Your task to perform on an android device: delete browsing data in the chrome app Image 0: 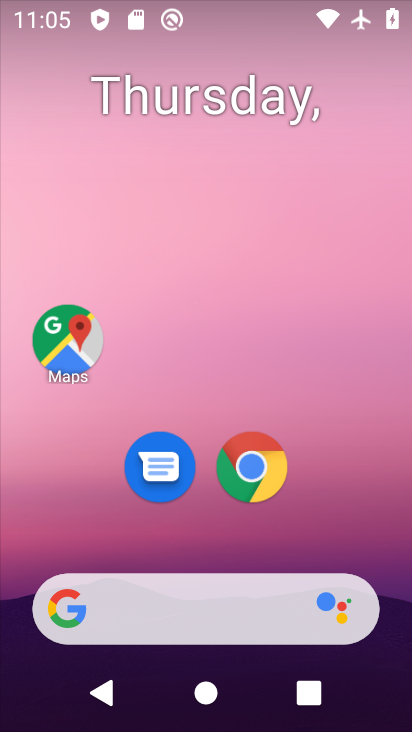
Step 0: click (255, 474)
Your task to perform on an android device: delete browsing data in the chrome app Image 1: 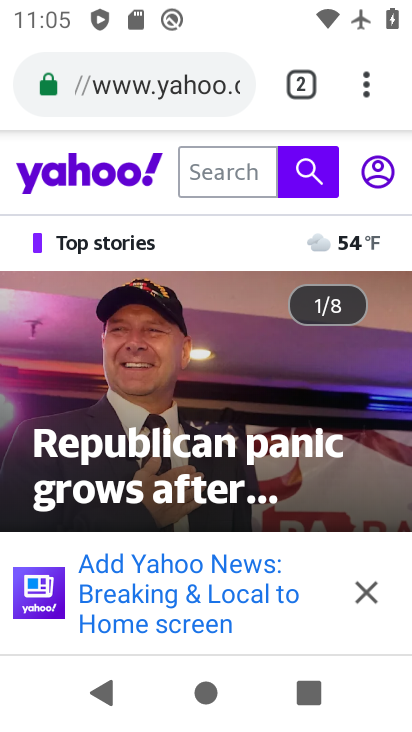
Step 1: click (367, 86)
Your task to perform on an android device: delete browsing data in the chrome app Image 2: 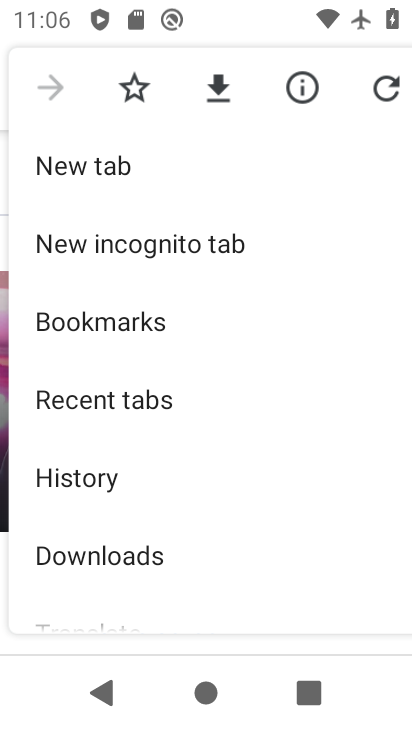
Step 2: drag from (197, 484) to (197, 121)
Your task to perform on an android device: delete browsing data in the chrome app Image 3: 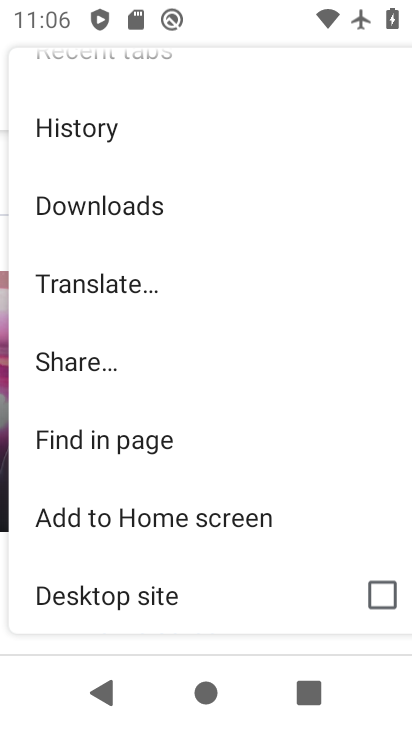
Step 3: drag from (157, 504) to (178, 149)
Your task to perform on an android device: delete browsing data in the chrome app Image 4: 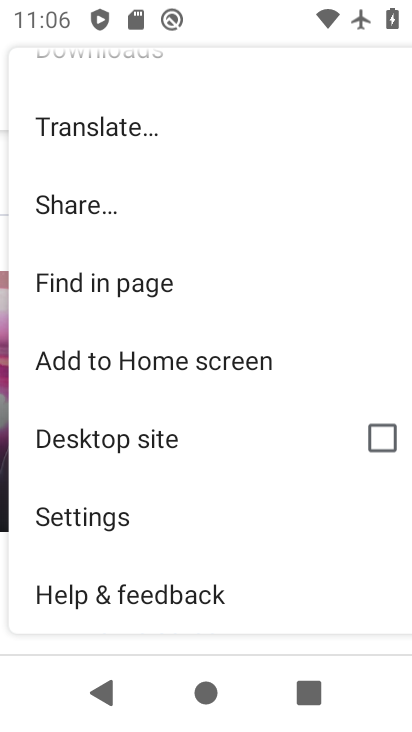
Step 4: click (88, 518)
Your task to perform on an android device: delete browsing data in the chrome app Image 5: 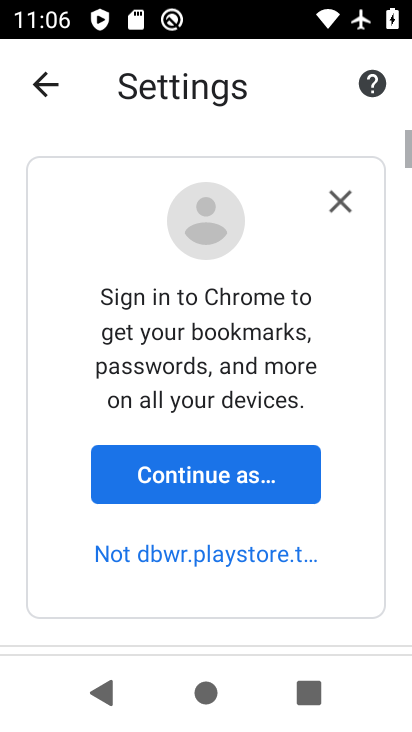
Step 5: drag from (223, 578) to (238, 121)
Your task to perform on an android device: delete browsing data in the chrome app Image 6: 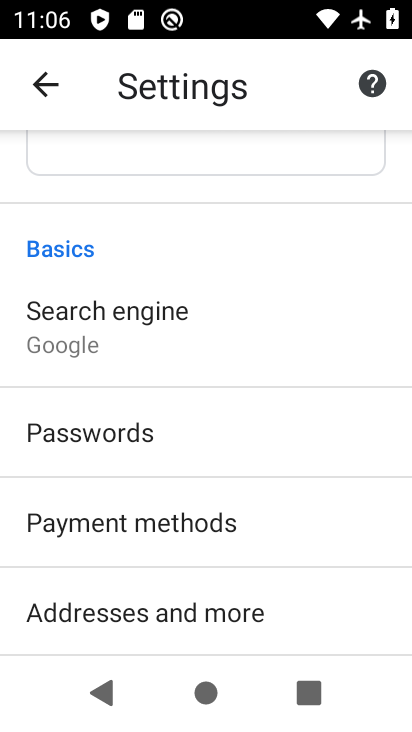
Step 6: drag from (134, 541) to (158, 100)
Your task to perform on an android device: delete browsing data in the chrome app Image 7: 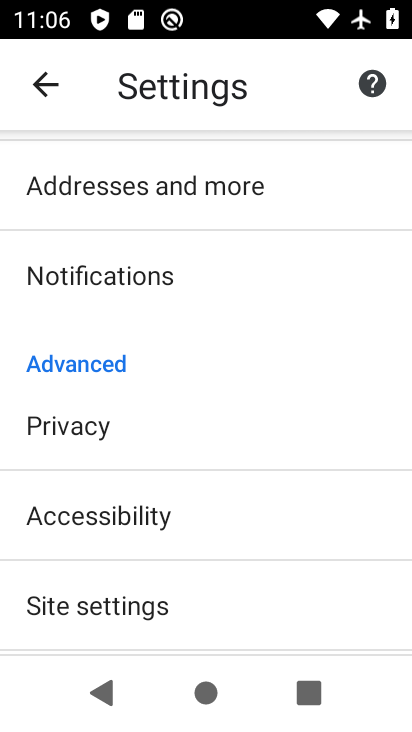
Step 7: click (73, 428)
Your task to perform on an android device: delete browsing data in the chrome app Image 8: 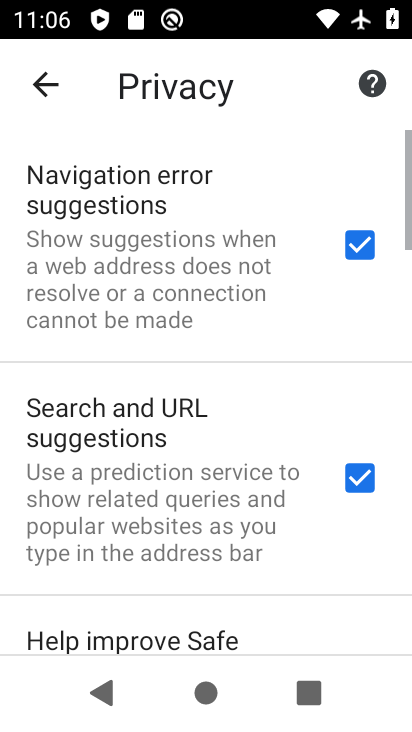
Step 8: drag from (192, 515) to (213, 32)
Your task to perform on an android device: delete browsing data in the chrome app Image 9: 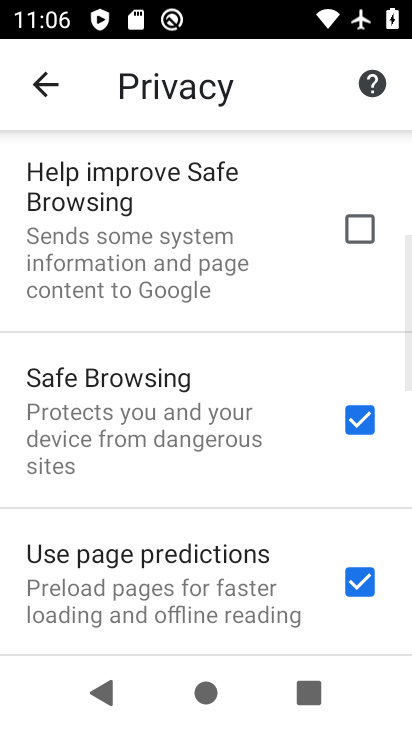
Step 9: drag from (118, 573) to (133, 86)
Your task to perform on an android device: delete browsing data in the chrome app Image 10: 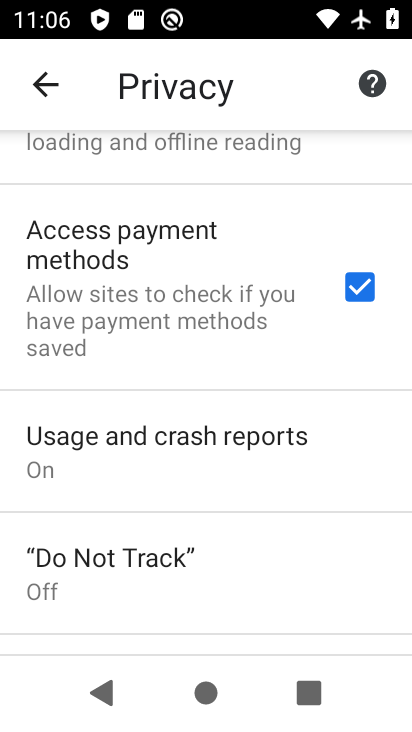
Step 10: drag from (136, 517) to (129, 118)
Your task to perform on an android device: delete browsing data in the chrome app Image 11: 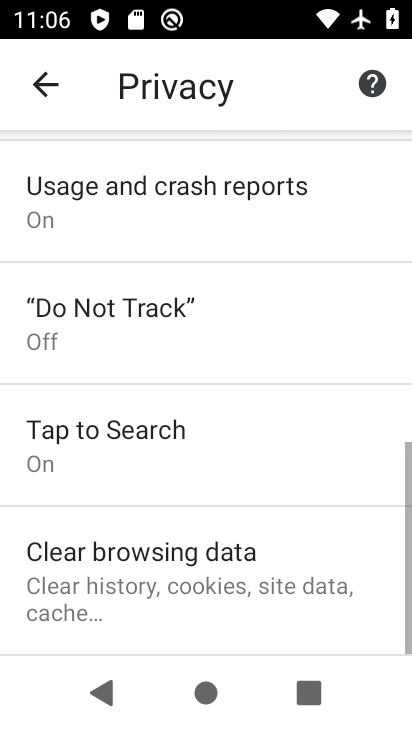
Step 11: click (104, 565)
Your task to perform on an android device: delete browsing data in the chrome app Image 12: 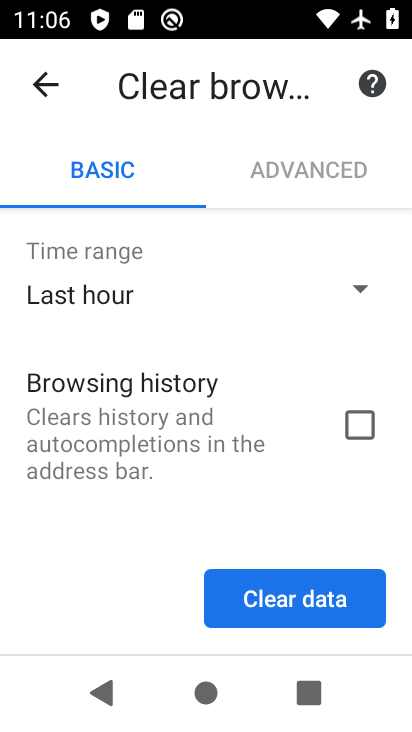
Step 12: click (353, 425)
Your task to perform on an android device: delete browsing data in the chrome app Image 13: 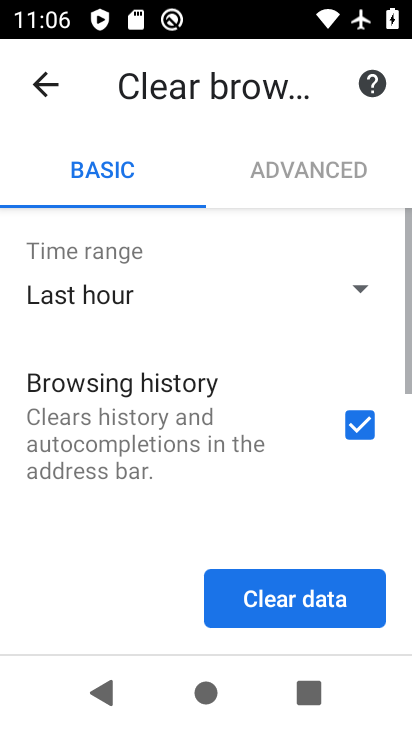
Step 13: drag from (131, 460) to (145, 153)
Your task to perform on an android device: delete browsing data in the chrome app Image 14: 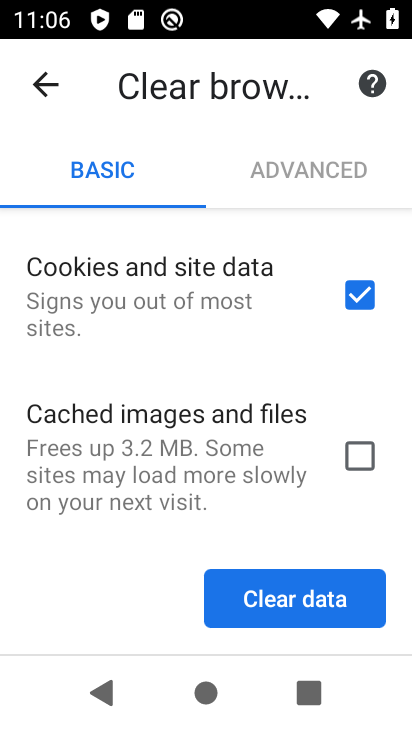
Step 14: click (349, 294)
Your task to perform on an android device: delete browsing data in the chrome app Image 15: 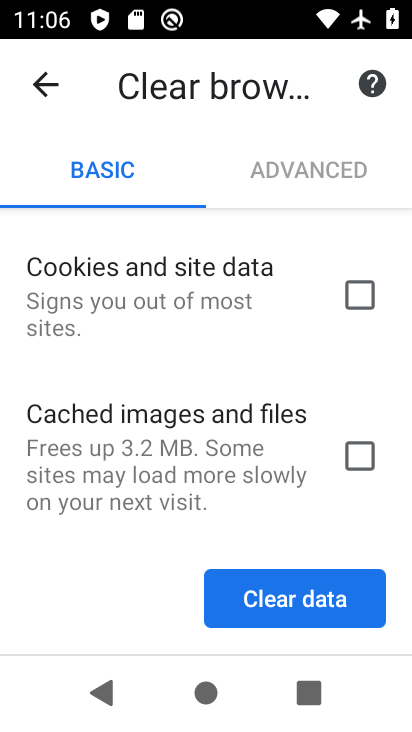
Step 15: drag from (129, 349) to (147, 588)
Your task to perform on an android device: delete browsing data in the chrome app Image 16: 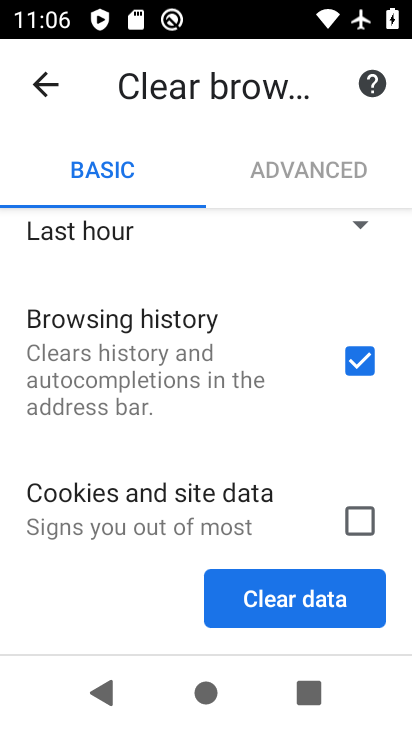
Step 16: drag from (139, 490) to (134, 202)
Your task to perform on an android device: delete browsing data in the chrome app Image 17: 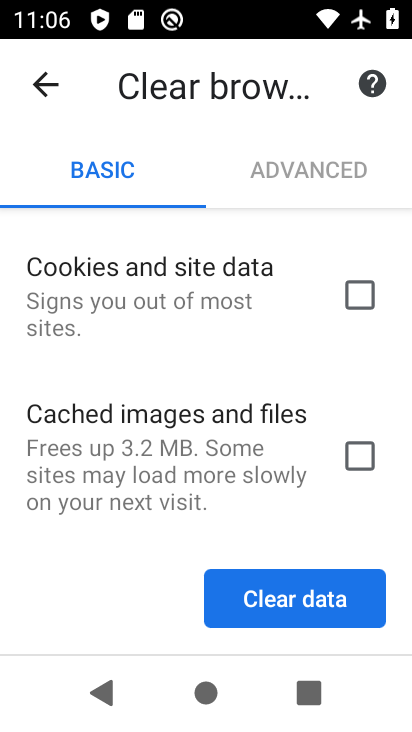
Step 17: click (292, 604)
Your task to perform on an android device: delete browsing data in the chrome app Image 18: 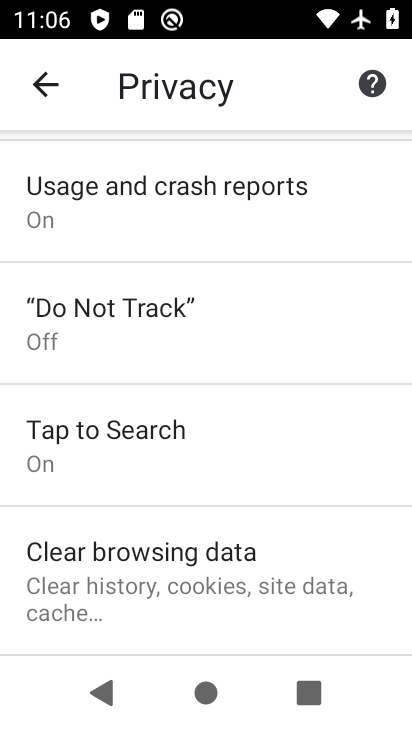
Step 18: task complete